Your task to perform on an android device: Search for seafood restaurants on Google Maps Image 0: 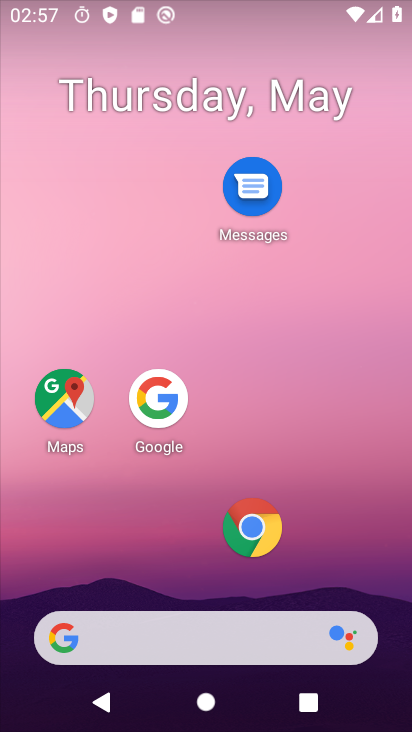
Step 0: click (223, 56)
Your task to perform on an android device: Search for seafood restaurants on Google Maps Image 1: 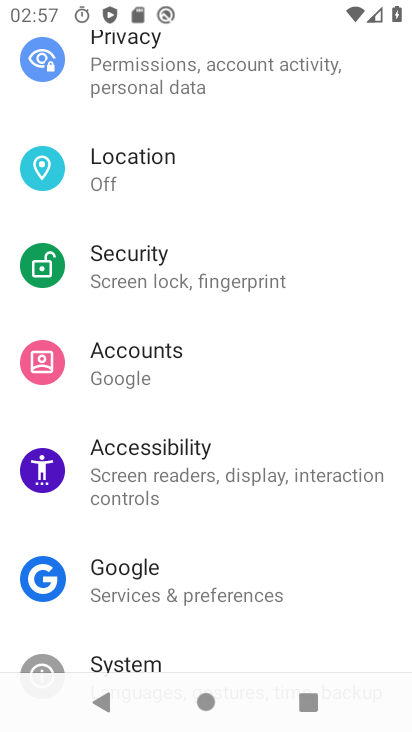
Step 1: drag from (251, 588) to (251, 232)
Your task to perform on an android device: Search for seafood restaurants on Google Maps Image 2: 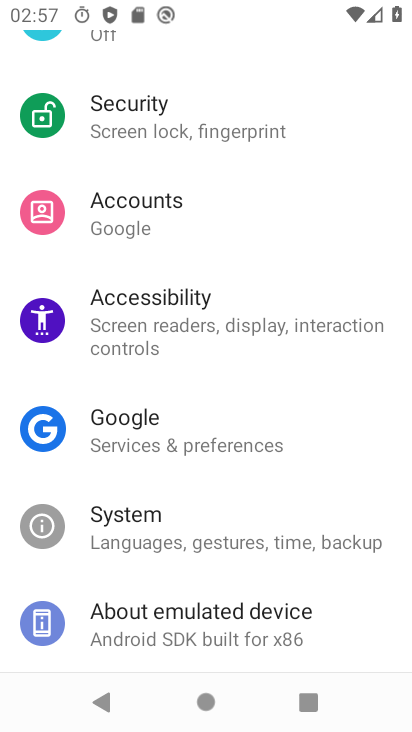
Step 2: drag from (222, 198) to (241, 645)
Your task to perform on an android device: Search for seafood restaurants on Google Maps Image 3: 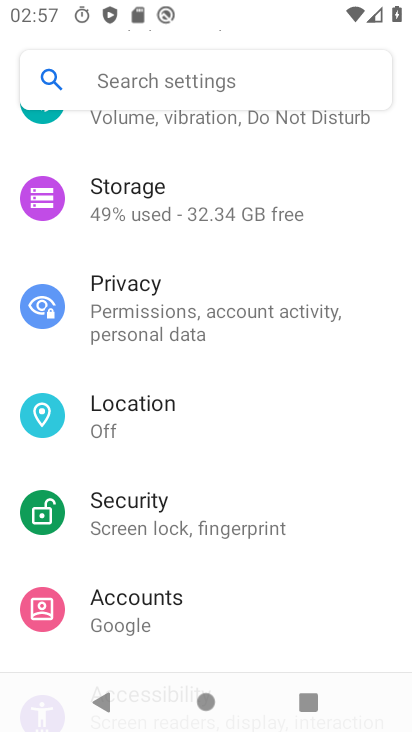
Step 3: press home button
Your task to perform on an android device: Search for seafood restaurants on Google Maps Image 4: 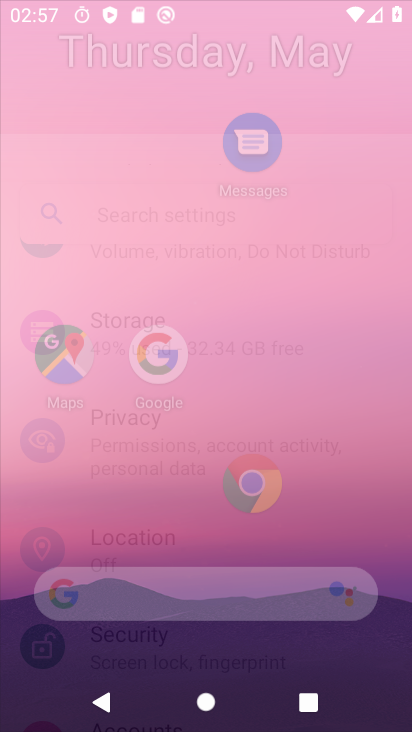
Step 4: drag from (146, 609) to (185, 321)
Your task to perform on an android device: Search for seafood restaurants on Google Maps Image 5: 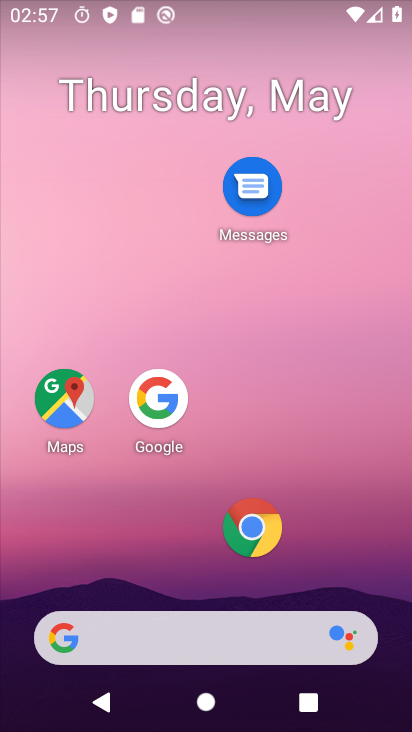
Step 5: click (62, 393)
Your task to perform on an android device: Search for seafood restaurants on Google Maps Image 6: 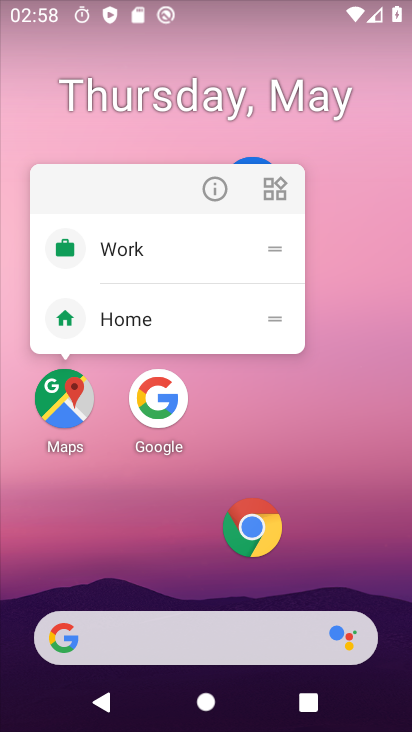
Step 6: click (217, 192)
Your task to perform on an android device: Search for seafood restaurants on Google Maps Image 7: 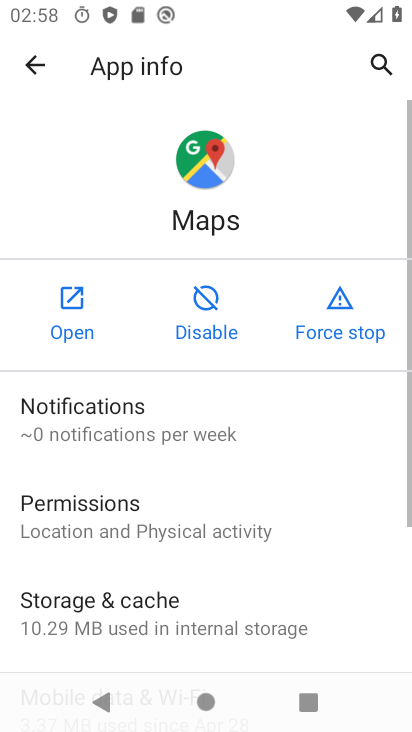
Step 7: click (77, 320)
Your task to perform on an android device: Search for seafood restaurants on Google Maps Image 8: 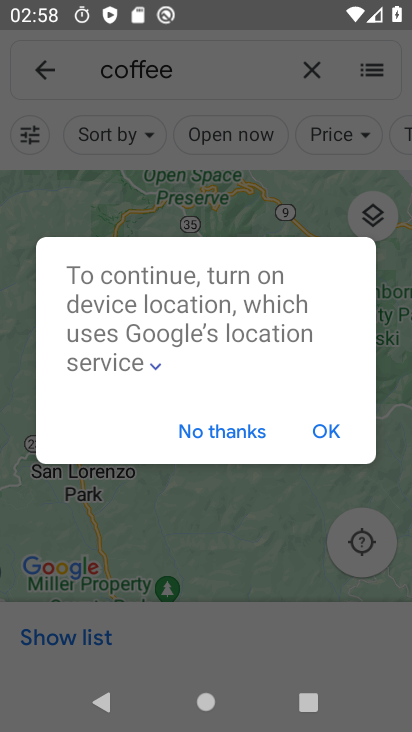
Step 8: click (311, 65)
Your task to perform on an android device: Search for seafood restaurants on Google Maps Image 9: 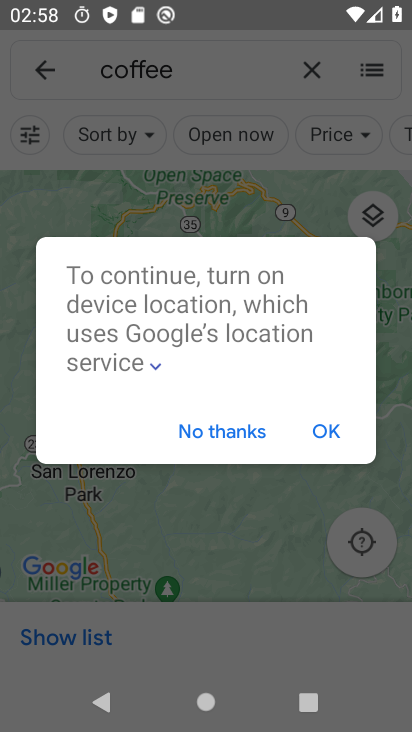
Step 9: click (310, 414)
Your task to perform on an android device: Search for seafood restaurants on Google Maps Image 10: 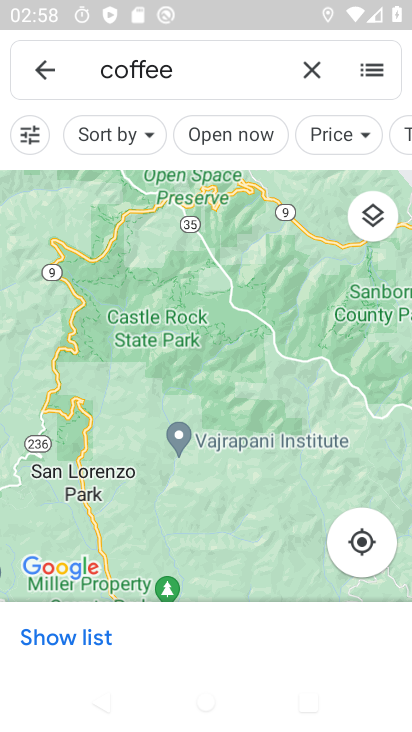
Step 10: click (310, 63)
Your task to perform on an android device: Search for seafood restaurants on Google Maps Image 11: 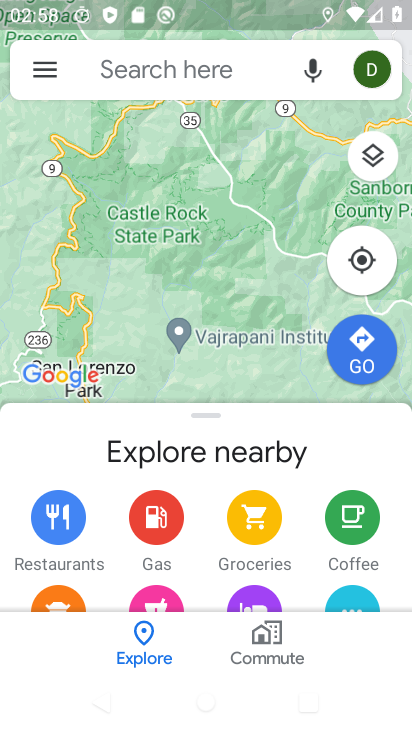
Step 11: click (172, 65)
Your task to perform on an android device: Search for seafood restaurants on Google Maps Image 12: 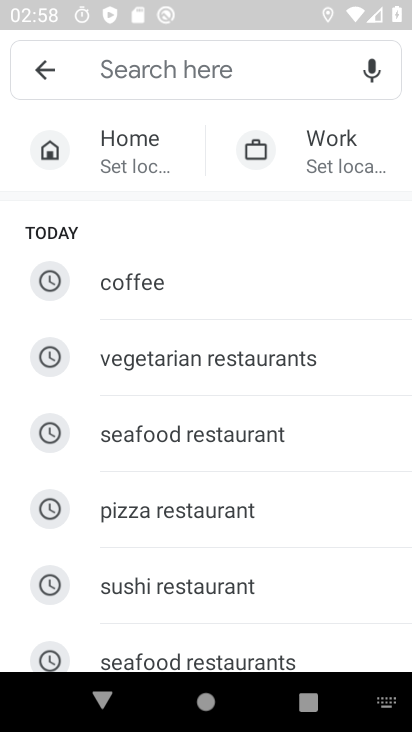
Step 12: click (194, 436)
Your task to perform on an android device: Search for seafood restaurants on Google Maps Image 13: 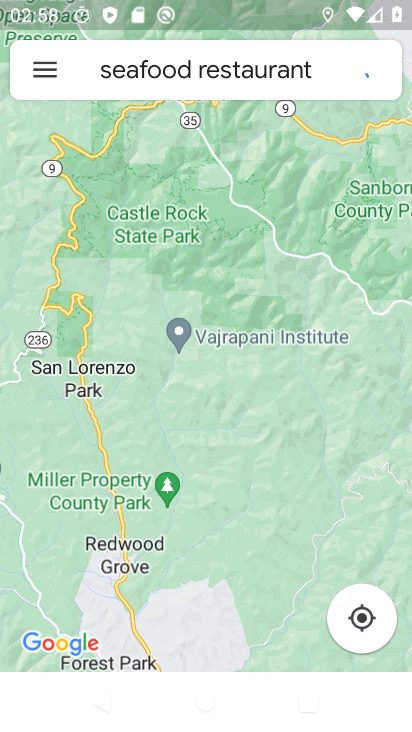
Step 13: task complete